Your task to perform on an android device: delete browsing data in the chrome app Image 0: 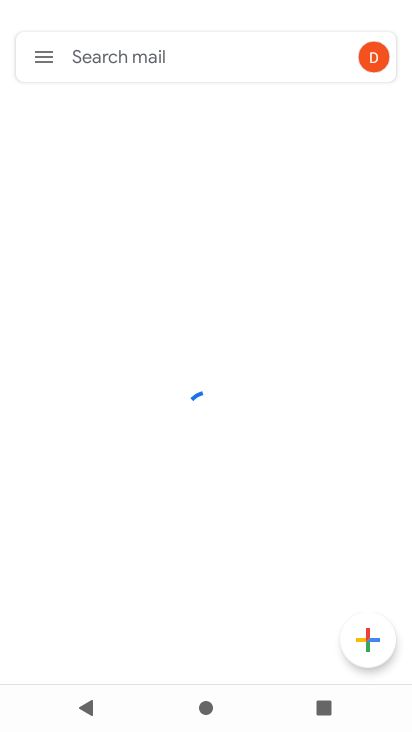
Step 0: press home button
Your task to perform on an android device: delete browsing data in the chrome app Image 1: 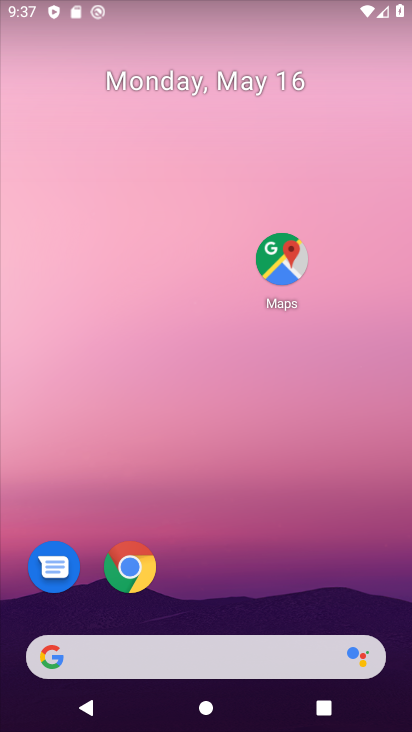
Step 1: click (122, 571)
Your task to perform on an android device: delete browsing data in the chrome app Image 2: 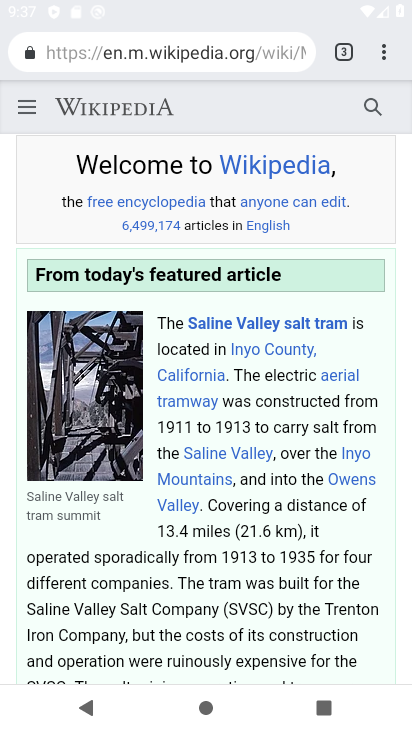
Step 2: click (381, 56)
Your task to perform on an android device: delete browsing data in the chrome app Image 3: 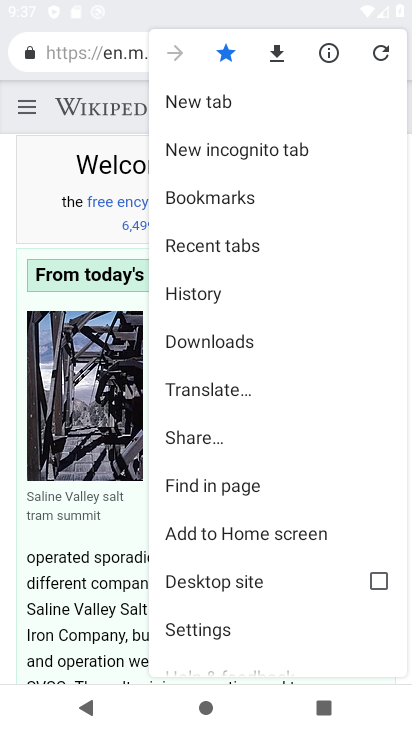
Step 3: click (246, 627)
Your task to perform on an android device: delete browsing data in the chrome app Image 4: 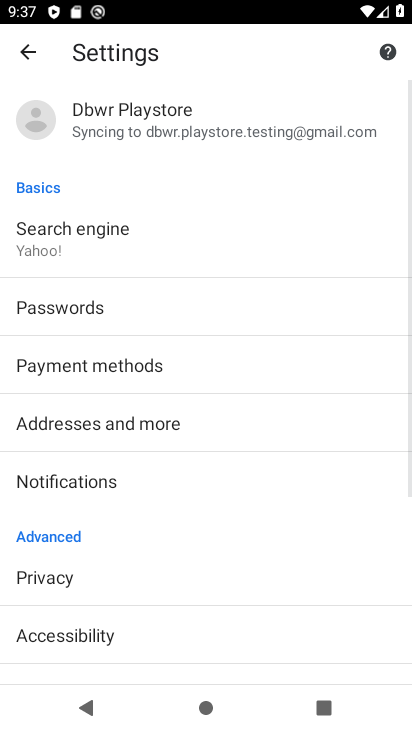
Step 4: click (81, 574)
Your task to perform on an android device: delete browsing data in the chrome app Image 5: 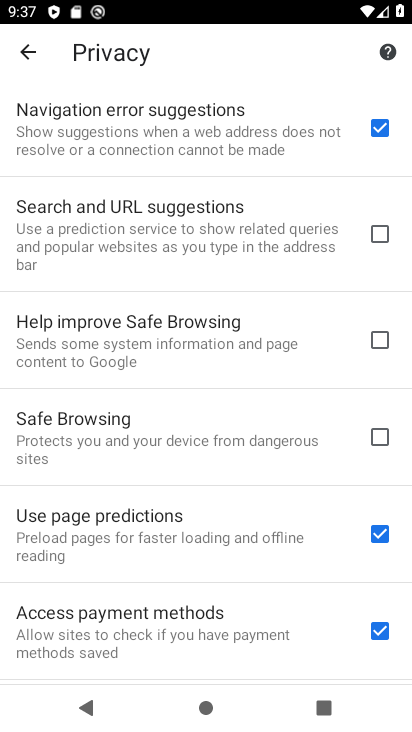
Step 5: drag from (243, 447) to (191, 67)
Your task to perform on an android device: delete browsing data in the chrome app Image 6: 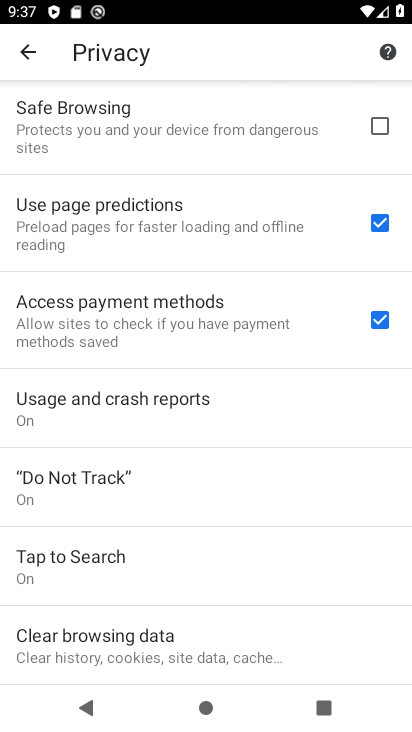
Step 6: click (153, 651)
Your task to perform on an android device: delete browsing data in the chrome app Image 7: 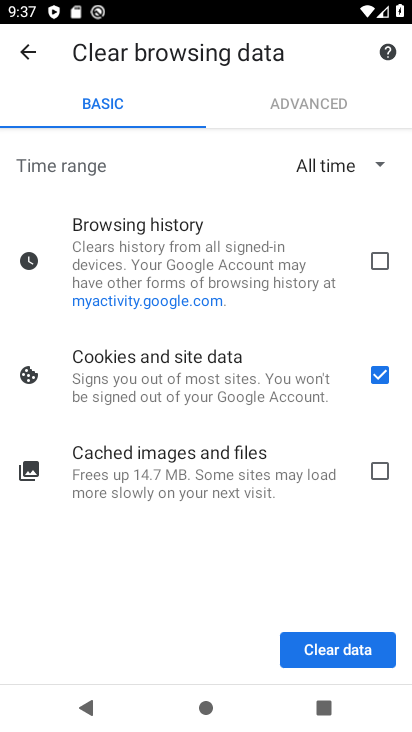
Step 7: click (334, 649)
Your task to perform on an android device: delete browsing data in the chrome app Image 8: 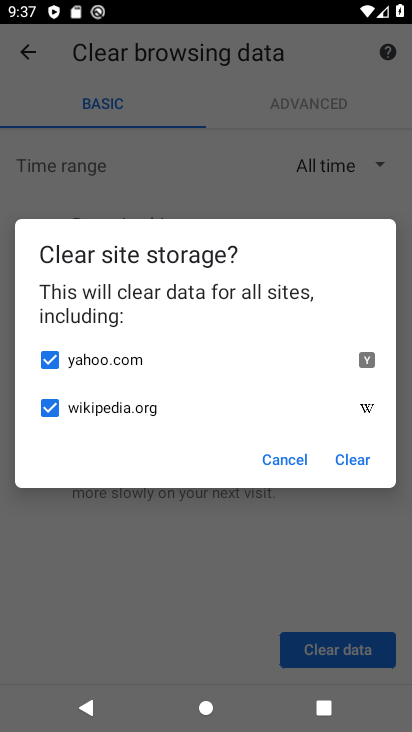
Step 8: click (286, 462)
Your task to perform on an android device: delete browsing data in the chrome app Image 9: 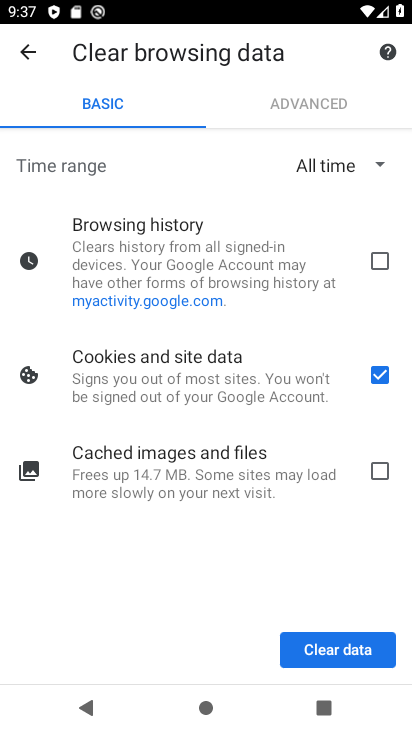
Step 9: click (364, 243)
Your task to perform on an android device: delete browsing data in the chrome app Image 10: 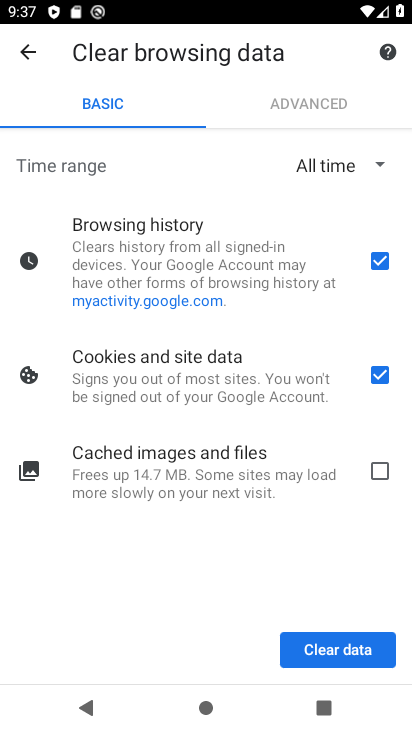
Step 10: click (379, 373)
Your task to perform on an android device: delete browsing data in the chrome app Image 11: 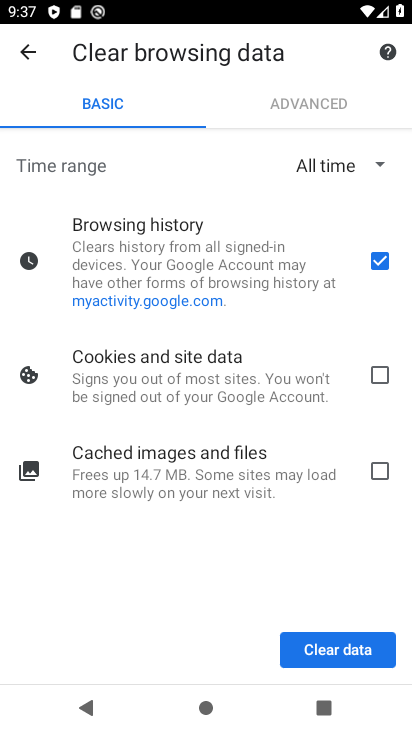
Step 11: click (338, 651)
Your task to perform on an android device: delete browsing data in the chrome app Image 12: 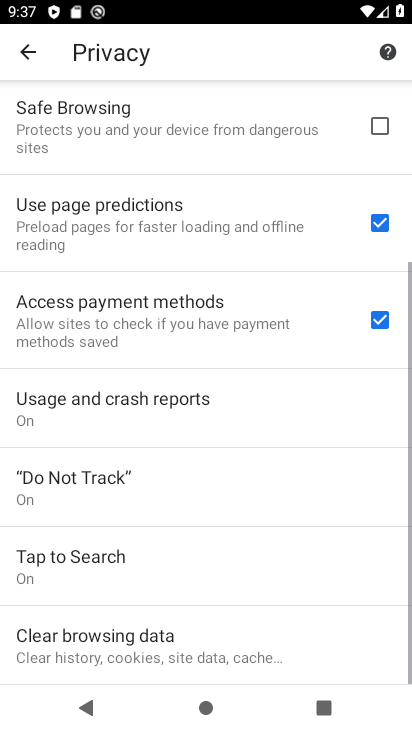
Step 12: task complete